Your task to perform on an android device: create a new album in the google photos Image 0: 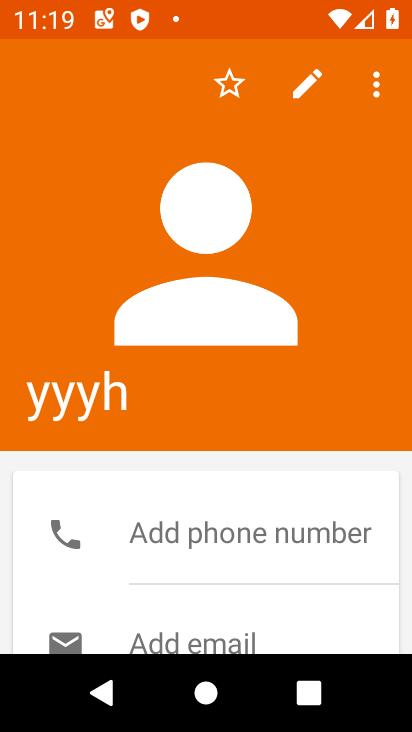
Step 0: drag from (173, 566) to (249, 275)
Your task to perform on an android device: create a new album in the google photos Image 1: 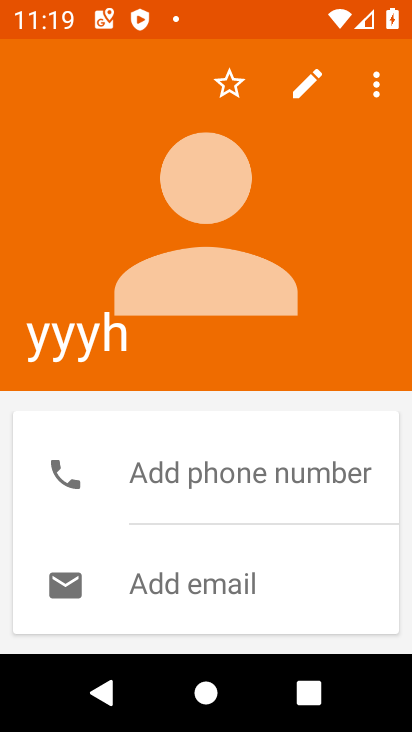
Step 1: drag from (219, 574) to (211, 329)
Your task to perform on an android device: create a new album in the google photos Image 2: 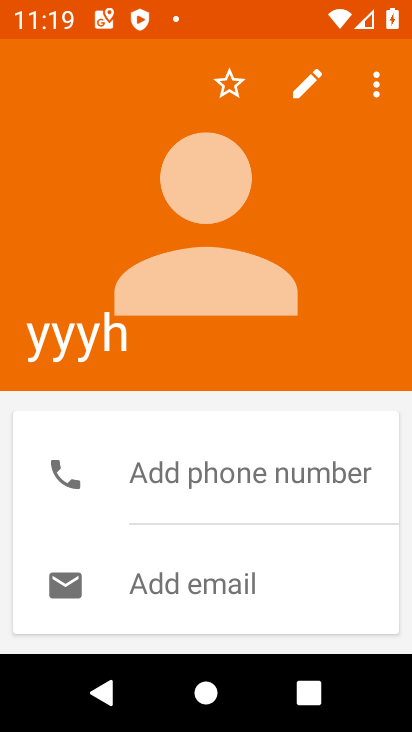
Step 2: press home button
Your task to perform on an android device: create a new album in the google photos Image 3: 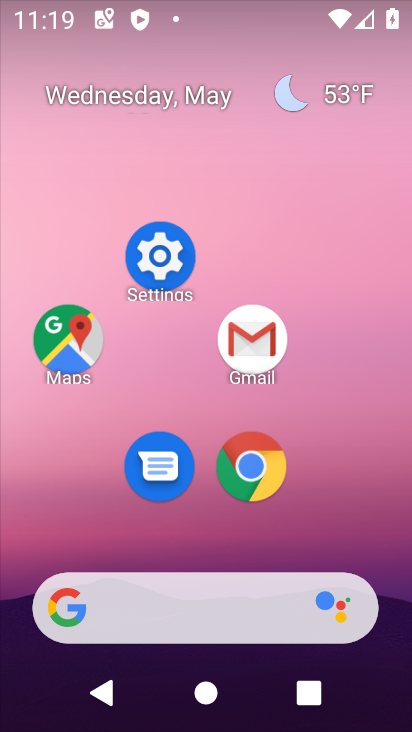
Step 3: click (345, 161)
Your task to perform on an android device: create a new album in the google photos Image 4: 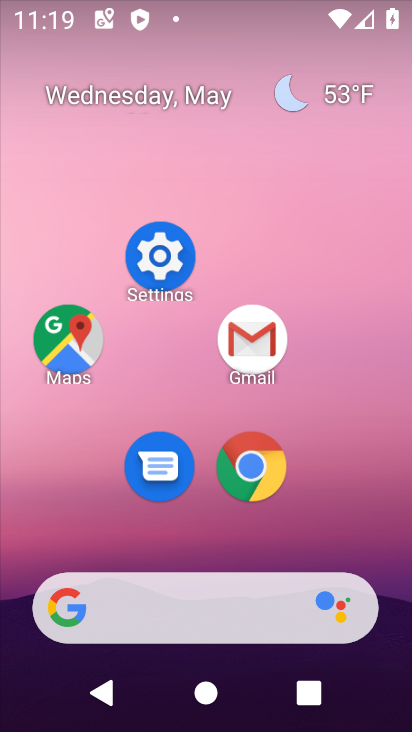
Step 4: click (220, 292)
Your task to perform on an android device: create a new album in the google photos Image 5: 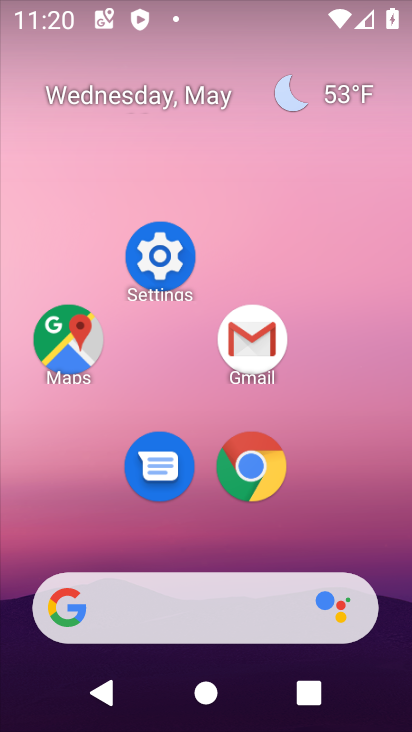
Step 5: drag from (210, 515) to (217, 165)
Your task to perform on an android device: create a new album in the google photos Image 6: 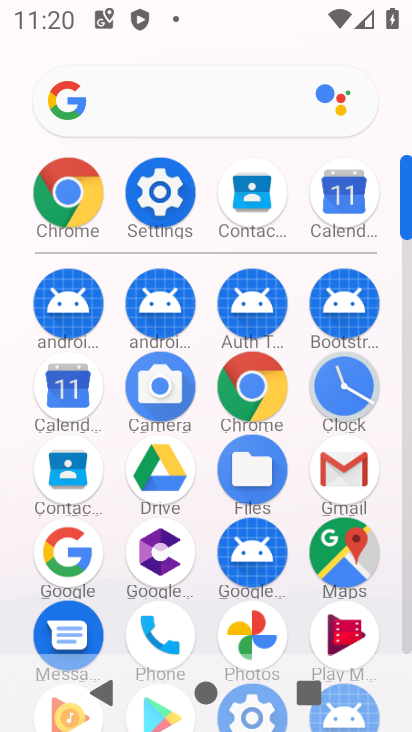
Step 6: click (249, 627)
Your task to perform on an android device: create a new album in the google photos Image 7: 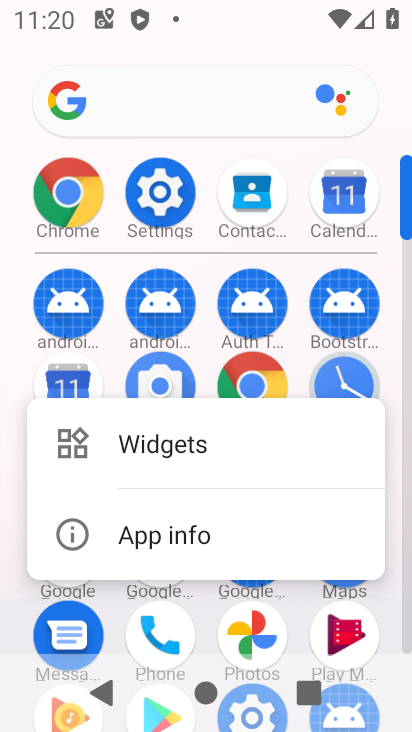
Step 7: click (129, 533)
Your task to perform on an android device: create a new album in the google photos Image 8: 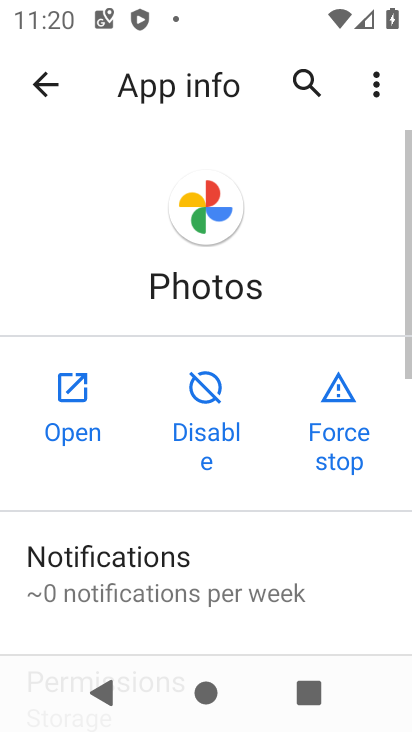
Step 8: click (65, 389)
Your task to perform on an android device: create a new album in the google photos Image 9: 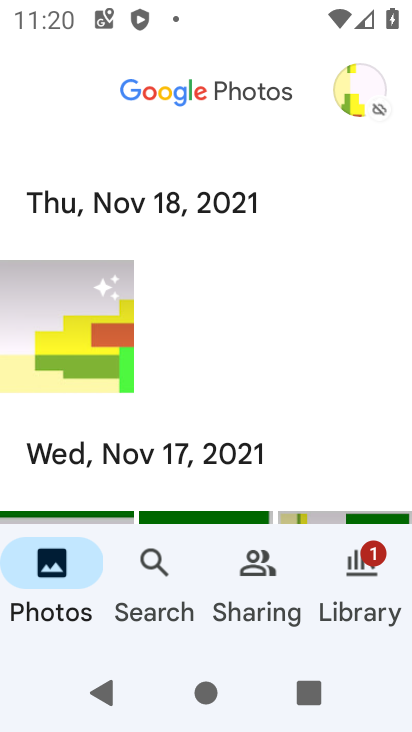
Step 9: drag from (236, 488) to (313, 144)
Your task to perform on an android device: create a new album in the google photos Image 10: 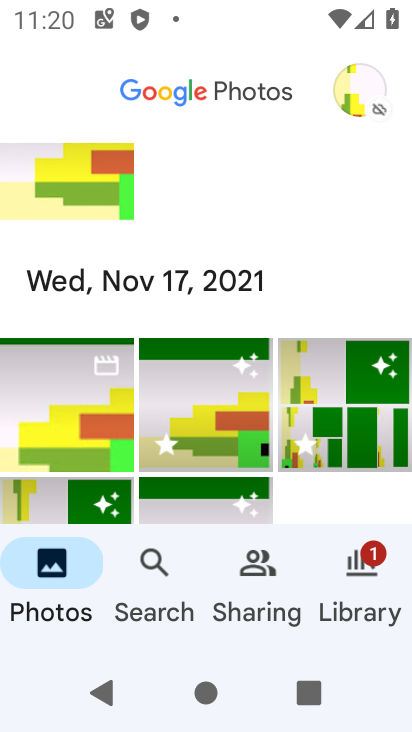
Step 10: click (356, 543)
Your task to perform on an android device: create a new album in the google photos Image 11: 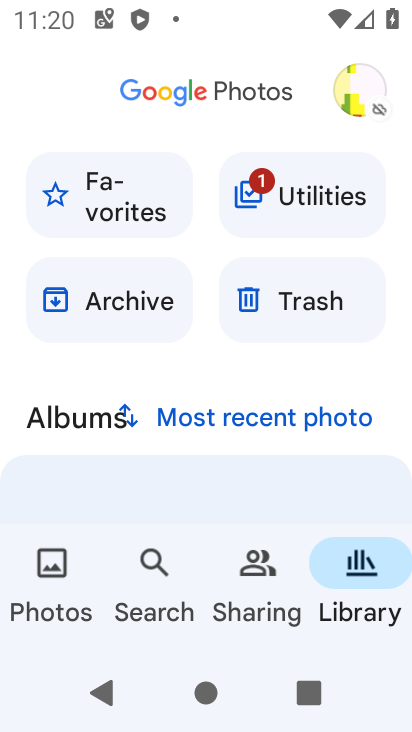
Step 11: drag from (181, 466) to (277, 52)
Your task to perform on an android device: create a new album in the google photos Image 12: 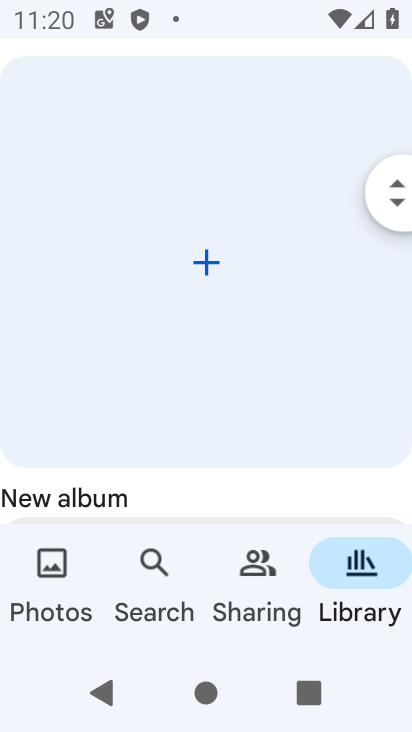
Step 12: click (207, 267)
Your task to perform on an android device: create a new album in the google photos Image 13: 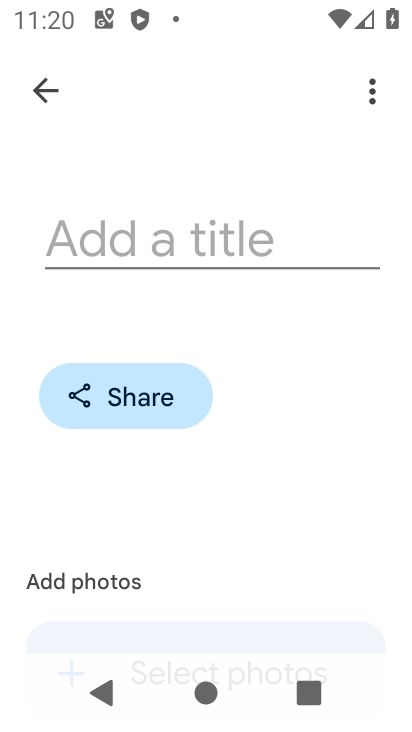
Step 13: click (105, 249)
Your task to perform on an android device: create a new album in the google photos Image 14: 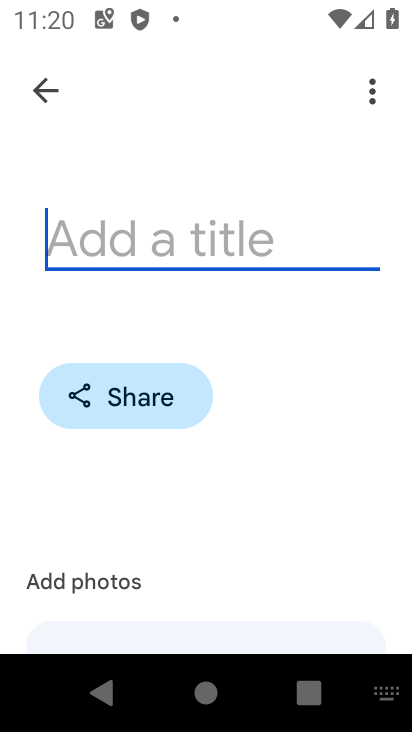
Step 14: type "mksl"
Your task to perform on an android device: create a new album in the google photos Image 15: 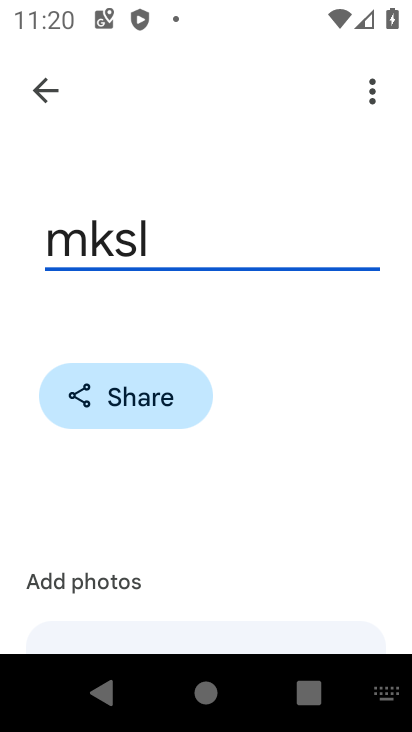
Step 15: drag from (152, 545) to (269, 7)
Your task to perform on an android device: create a new album in the google photos Image 16: 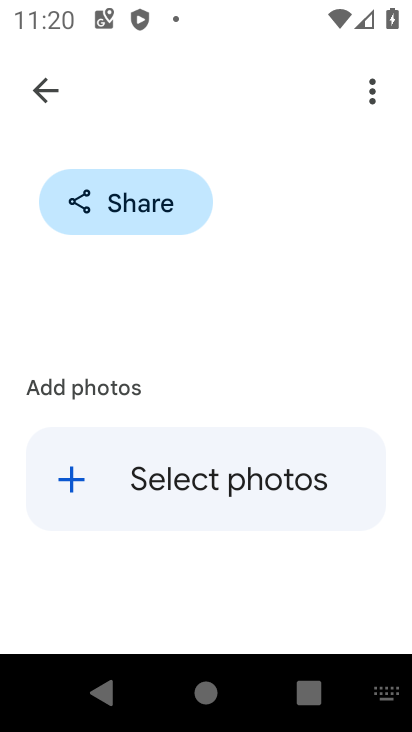
Step 16: click (81, 472)
Your task to perform on an android device: create a new album in the google photos Image 17: 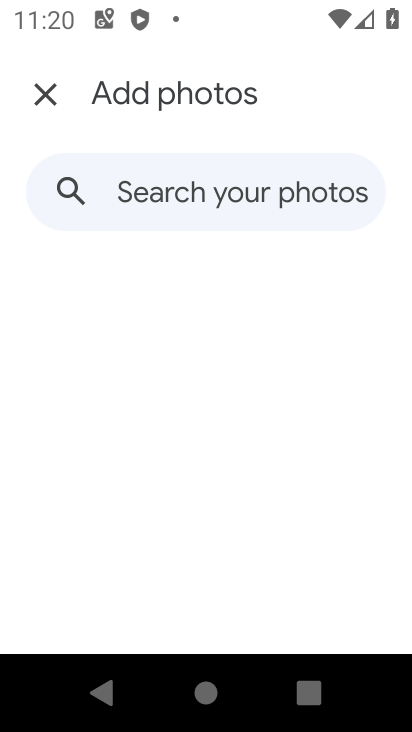
Step 17: drag from (181, 404) to (240, 162)
Your task to perform on an android device: create a new album in the google photos Image 18: 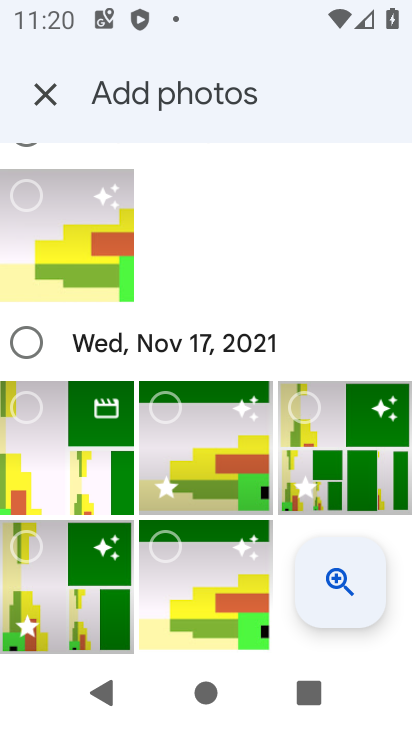
Step 18: click (181, 433)
Your task to perform on an android device: create a new album in the google photos Image 19: 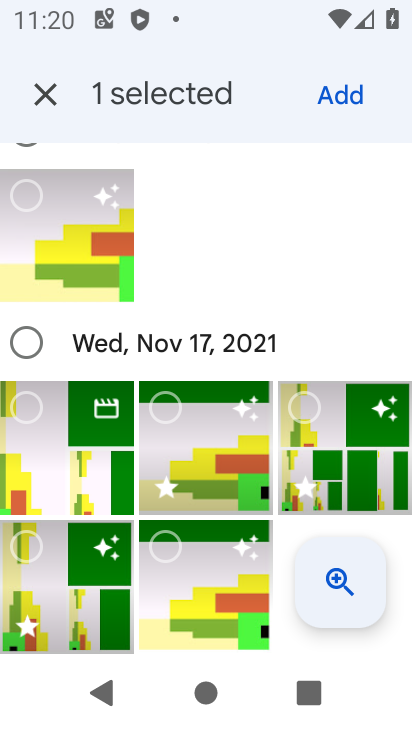
Step 19: click (322, 426)
Your task to perform on an android device: create a new album in the google photos Image 20: 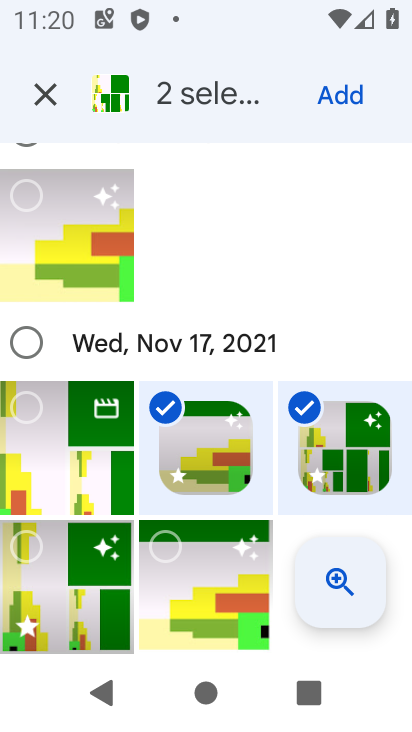
Step 20: click (351, 94)
Your task to perform on an android device: create a new album in the google photos Image 21: 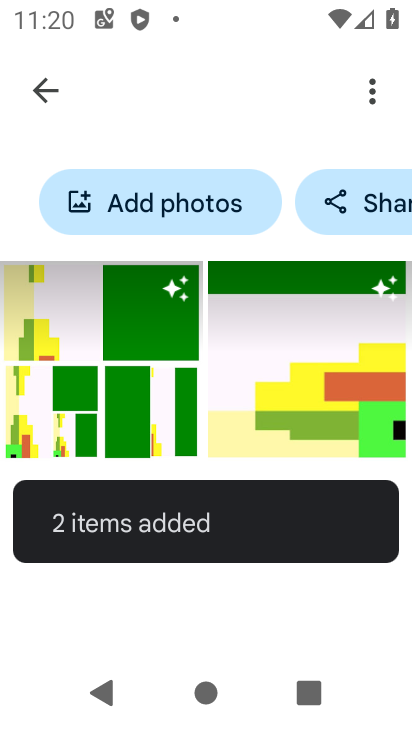
Step 21: task complete